Your task to perform on an android device: Clear all items from cart on newegg. Add "razer blade" to the cart on newegg, then select checkout. Image 0: 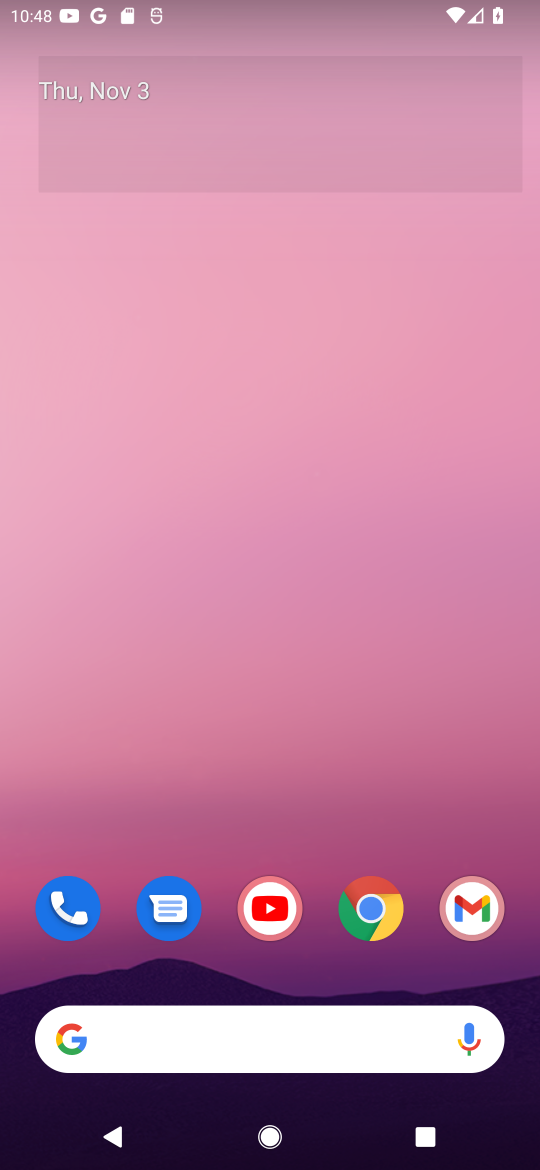
Step 0: click (386, 914)
Your task to perform on an android device: Clear all items from cart on newegg. Add "razer blade" to the cart on newegg, then select checkout. Image 1: 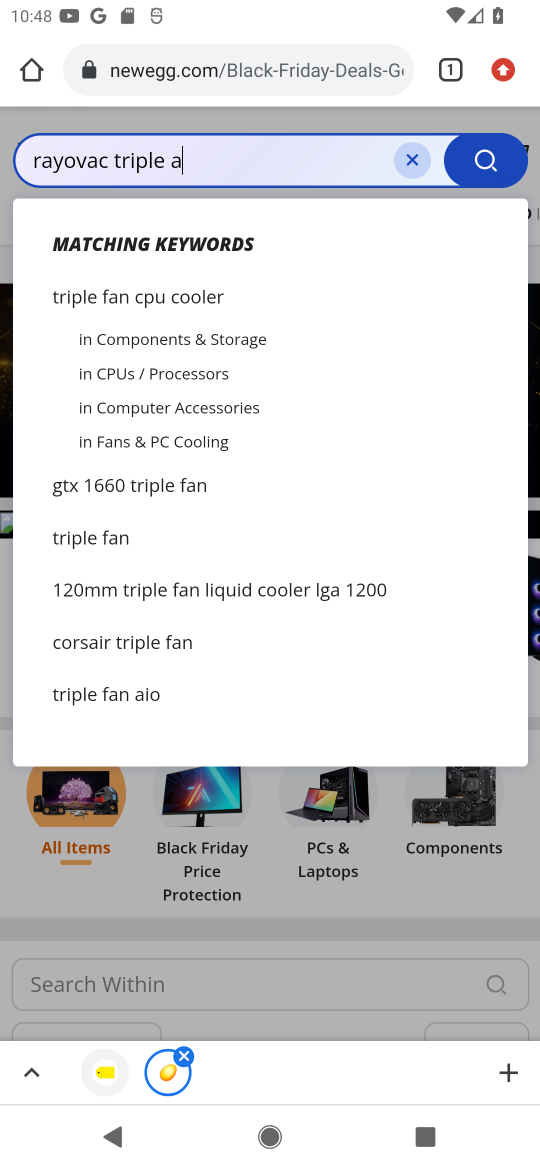
Step 1: click (410, 160)
Your task to perform on an android device: Clear all items from cart on newegg. Add "razer blade" to the cart on newegg, then select checkout. Image 2: 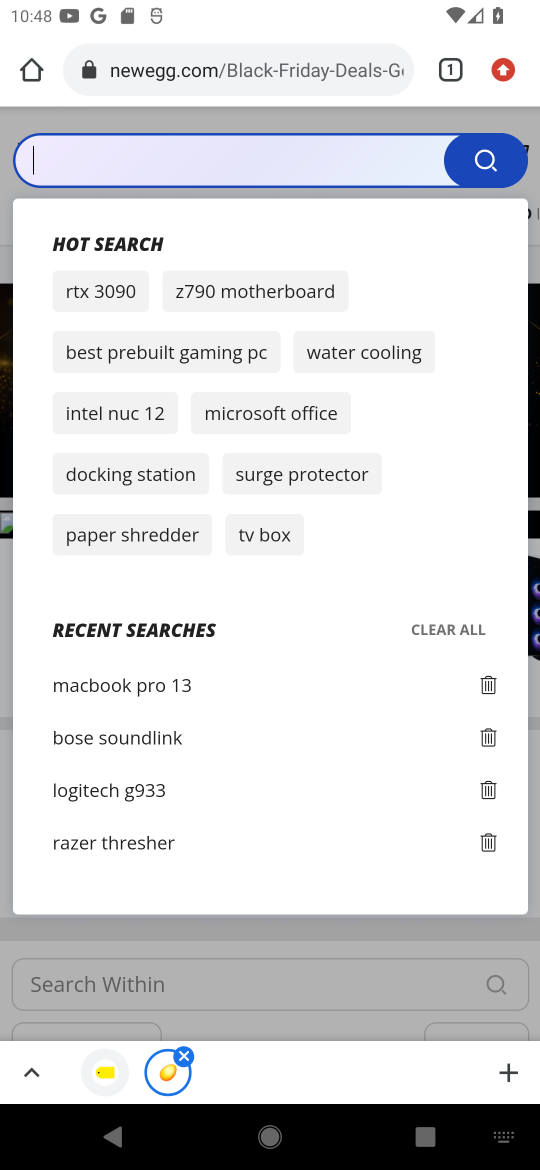
Step 2: click (333, 953)
Your task to perform on an android device: Clear all items from cart on newegg. Add "razer blade" to the cart on newegg, then select checkout. Image 3: 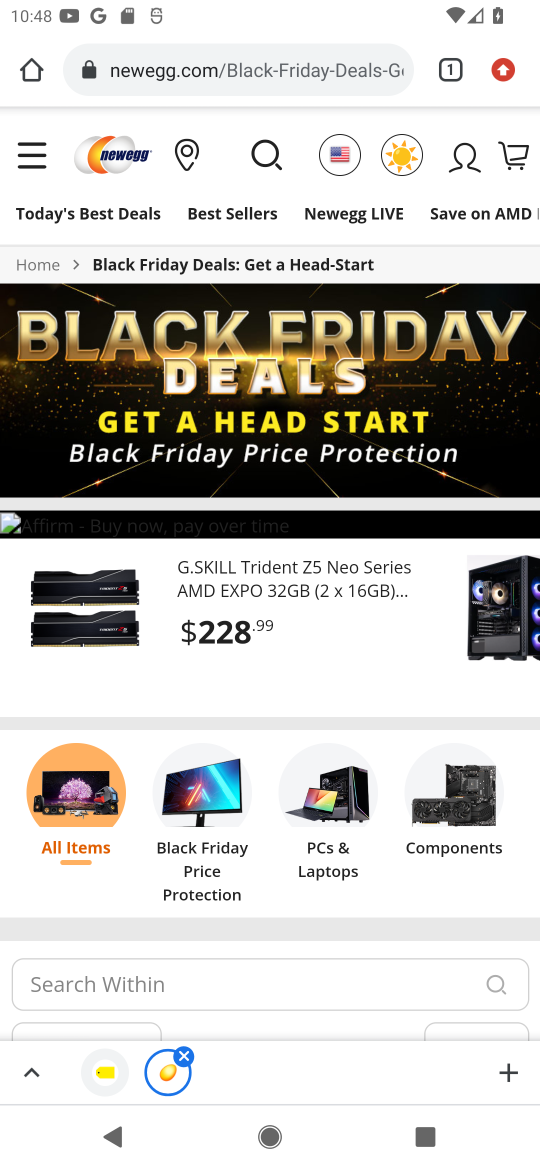
Step 3: click (517, 156)
Your task to perform on an android device: Clear all items from cart on newegg. Add "razer blade" to the cart on newegg, then select checkout. Image 4: 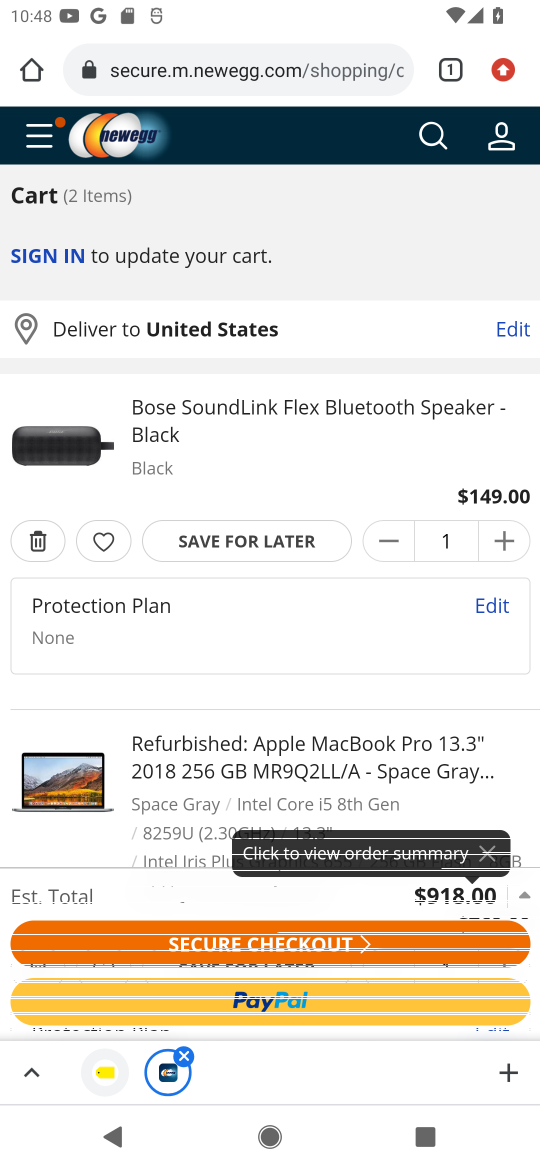
Step 4: click (31, 550)
Your task to perform on an android device: Clear all items from cart on newegg. Add "razer blade" to the cart on newegg, then select checkout. Image 5: 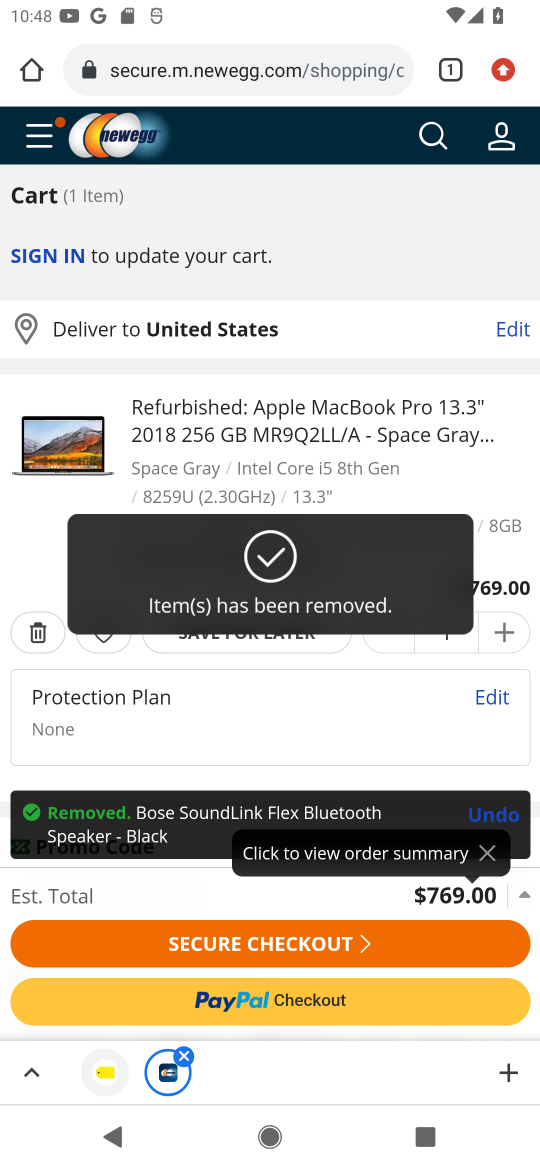
Step 5: click (31, 634)
Your task to perform on an android device: Clear all items from cart on newegg. Add "razer blade" to the cart on newegg, then select checkout. Image 6: 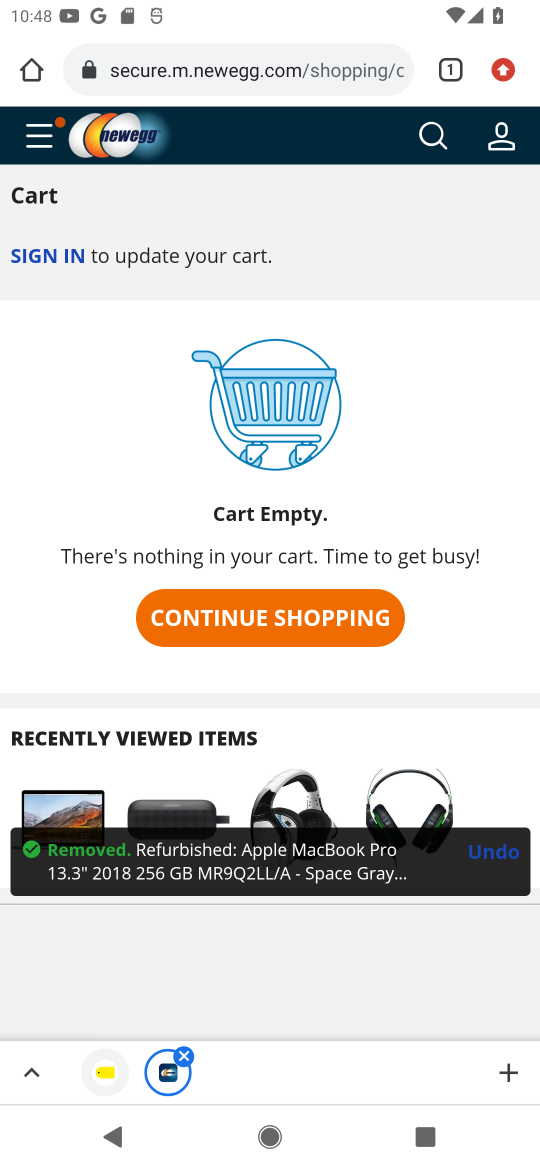
Step 6: click (433, 140)
Your task to perform on an android device: Clear all items from cart on newegg. Add "razer blade" to the cart on newegg, then select checkout. Image 7: 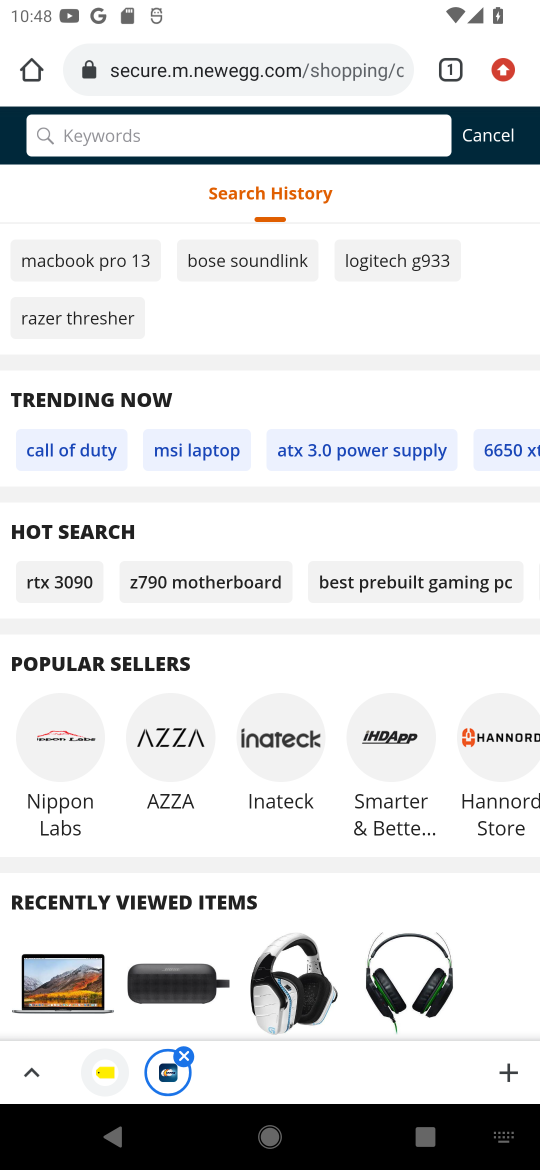
Step 7: type "razer blade"
Your task to perform on an android device: Clear all items from cart on newegg. Add "razer blade" to the cart on newegg, then select checkout. Image 8: 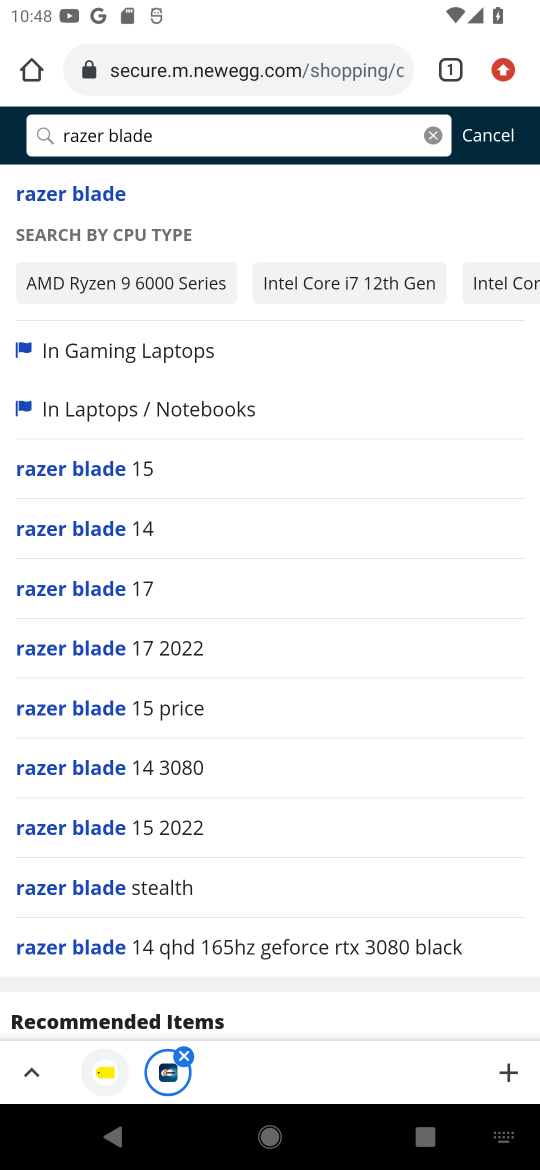
Step 8: click (79, 182)
Your task to perform on an android device: Clear all items from cart on newegg. Add "razer blade" to the cart on newegg, then select checkout. Image 9: 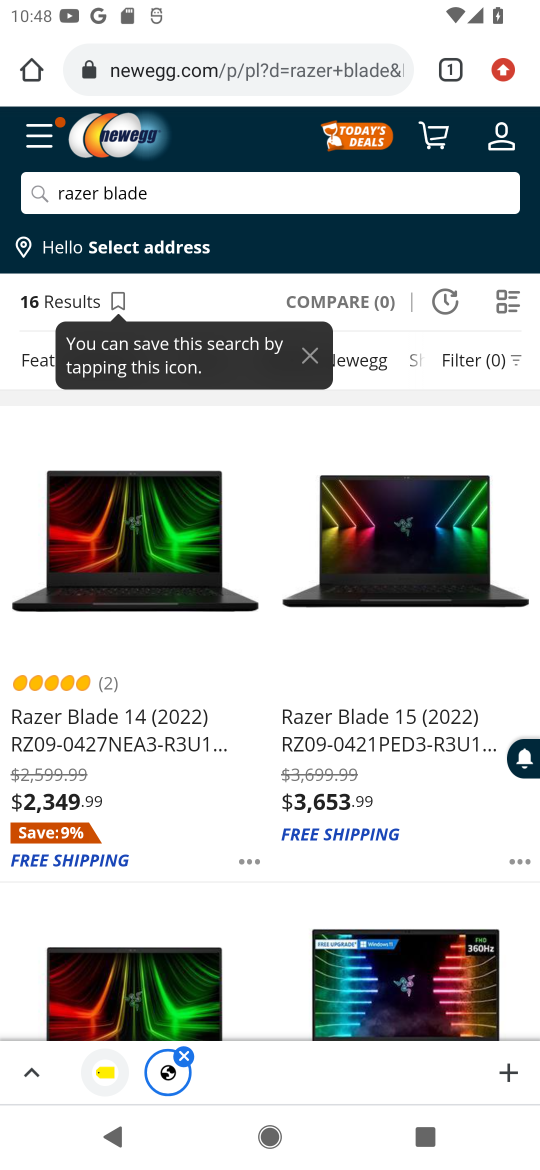
Step 9: click (408, 547)
Your task to perform on an android device: Clear all items from cart on newegg. Add "razer blade" to the cart on newegg, then select checkout. Image 10: 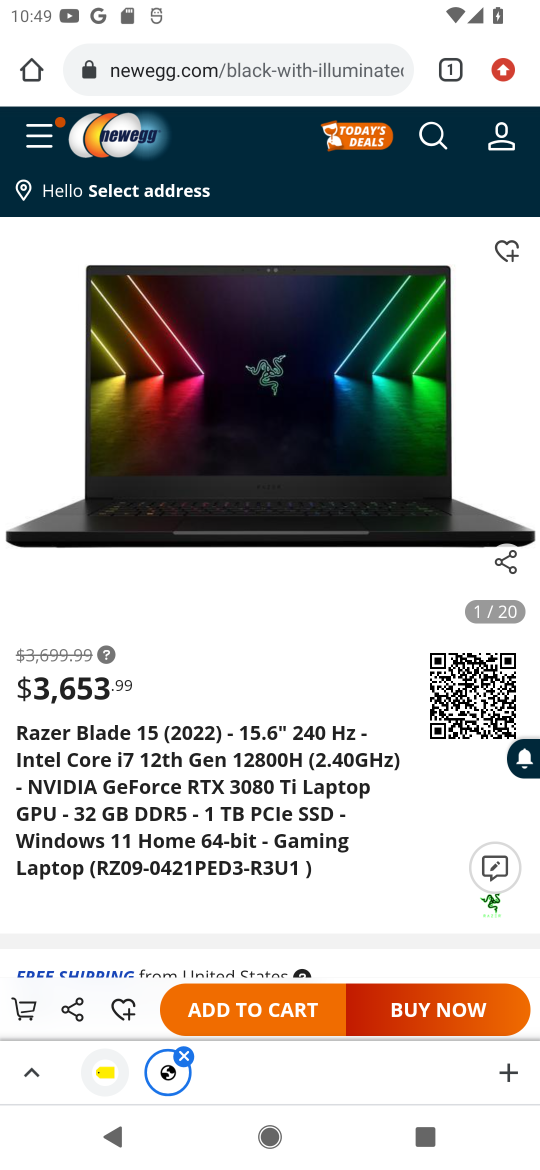
Step 10: click (270, 1008)
Your task to perform on an android device: Clear all items from cart on newegg. Add "razer blade" to the cart on newegg, then select checkout. Image 11: 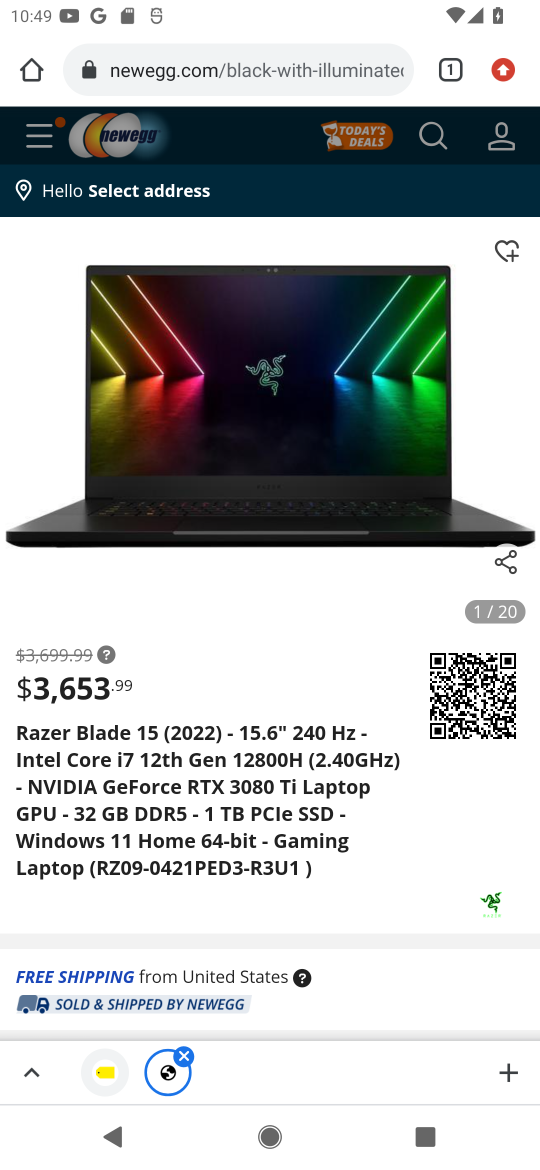
Step 11: click (515, 290)
Your task to perform on an android device: Clear all items from cart on newegg. Add "razer blade" to the cart on newegg, then select checkout. Image 12: 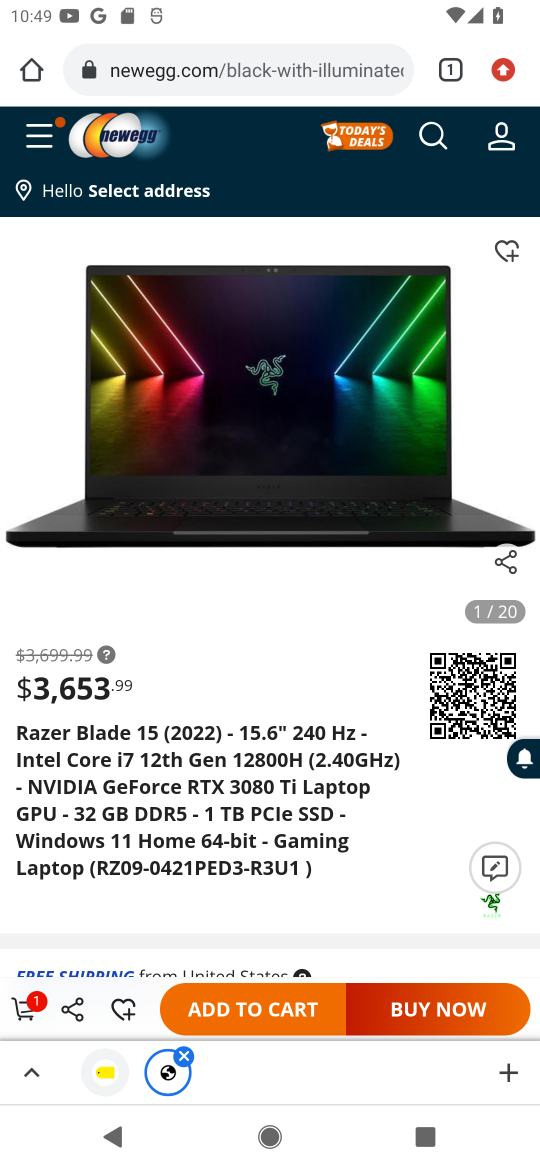
Step 12: click (438, 141)
Your task to perform on an android device: Clear all items from cart on newegg. Add "razer blade" to the cart on newegg, then select checkout. Image 13: 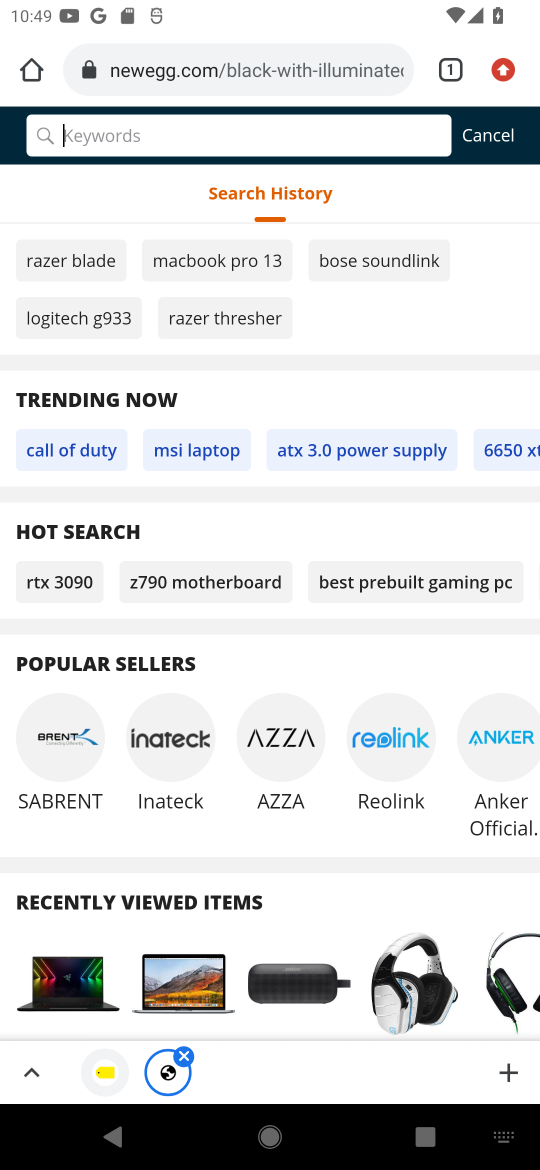
Step 13: click (524, 282)
Your task to perform on an android device: Clear all items from cart on newegg. Add "razer blade" to the cart on newegg, then select checkout. Image 14: 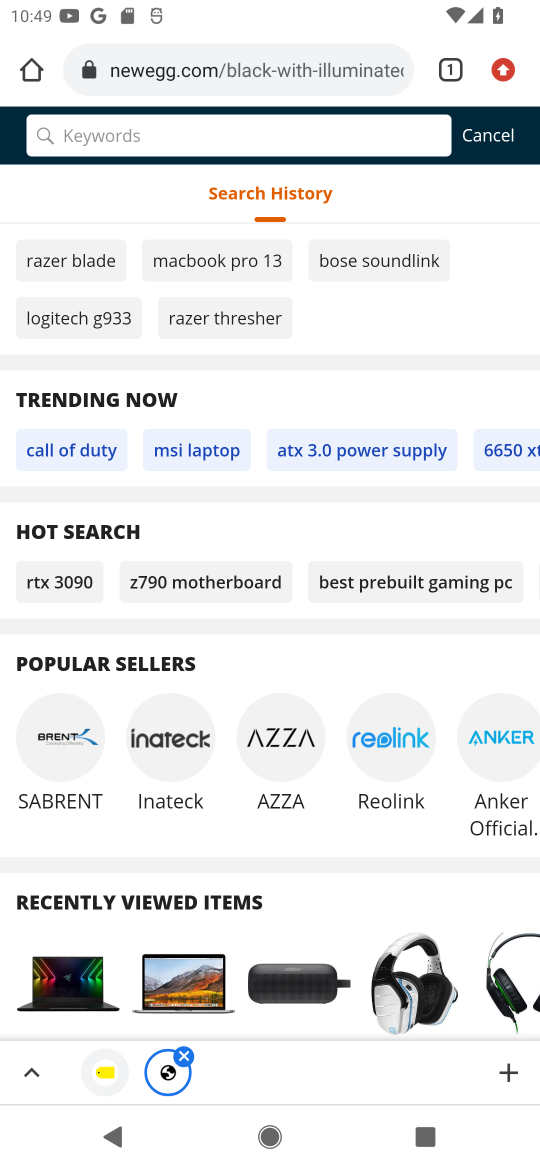
Step 14: click (494, 137)
Your task to perform on an android device: Clear all items from cart on newegg. Add "razer blade" to the cart on newegg, then select checkout. Image 15: 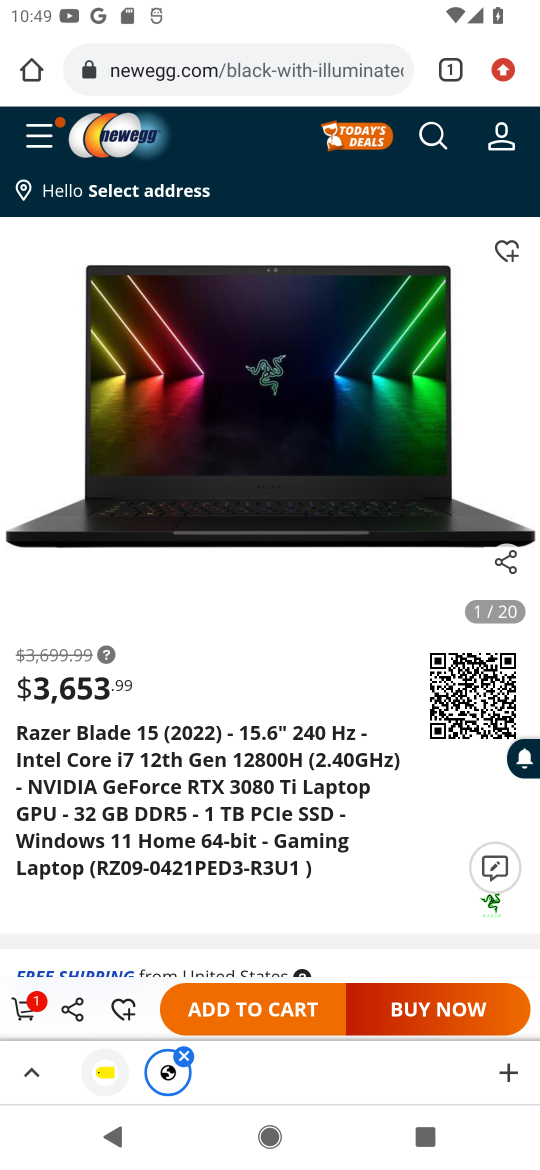
Step 15: click (26, 1012)
Your task to perform on an android device: Clear all items from cart on newegg. Add "razer blade" to the cart on newegg, then select checkout. Image 16: 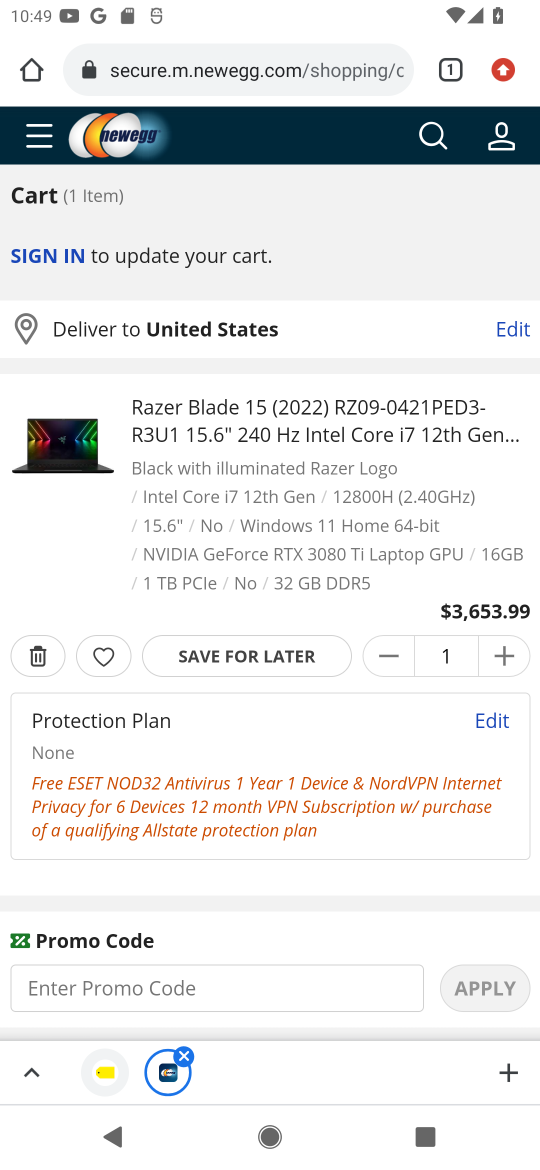
Step 16: click (276, 978)
Your task to perform on an android device: Clear all items from cart on newegg. Add "razer blade" to the cart on newegg, then select checkout. Image 17: 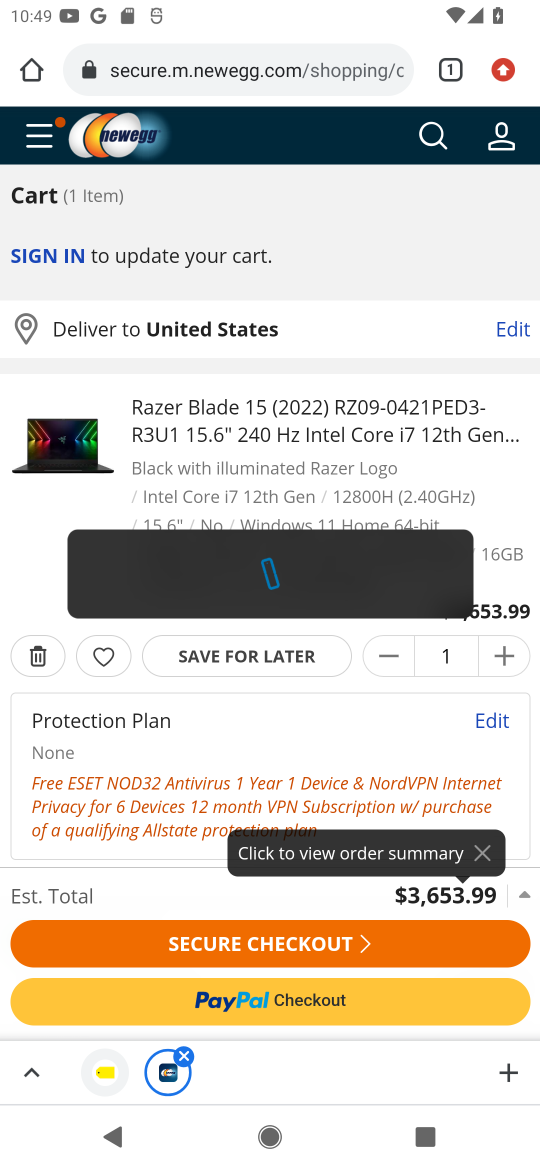
Step 17: click (298, 934)
Your task to perform on an android device: Clear all items from cart on newegg. Add "razer blade" to the cart on newegg, then select checkout. Image 18: 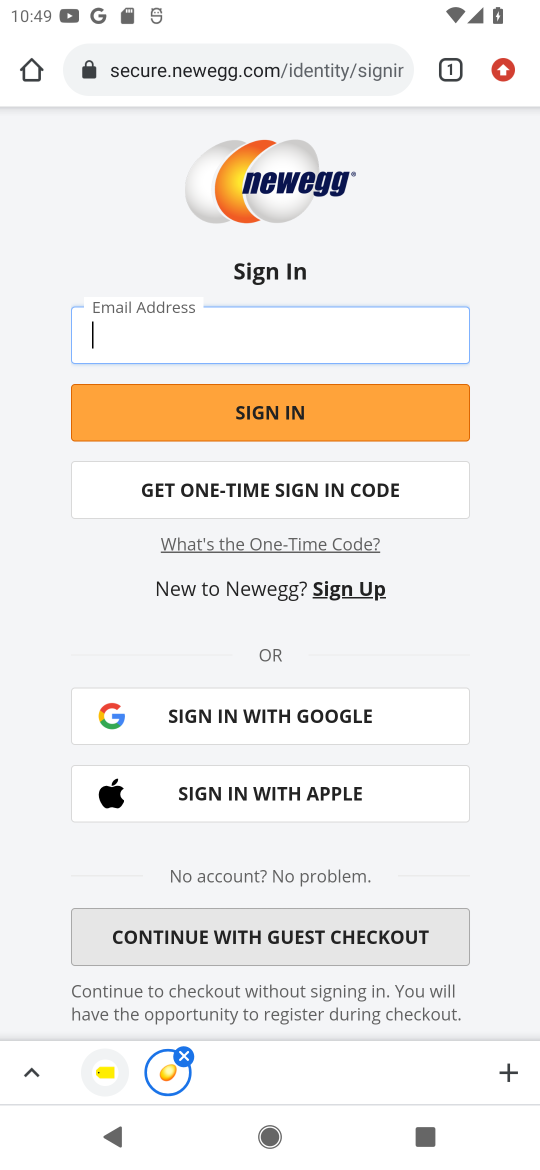
Step 18: task complete